Your task to perform on an android device: What's on my calendar today? Image 0: 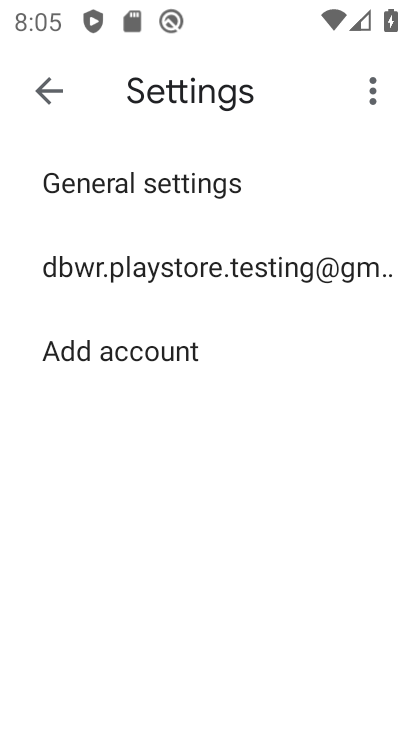
Step 0: press home button
Your task to perform on an android device: What's on my calendar today? Image 1: 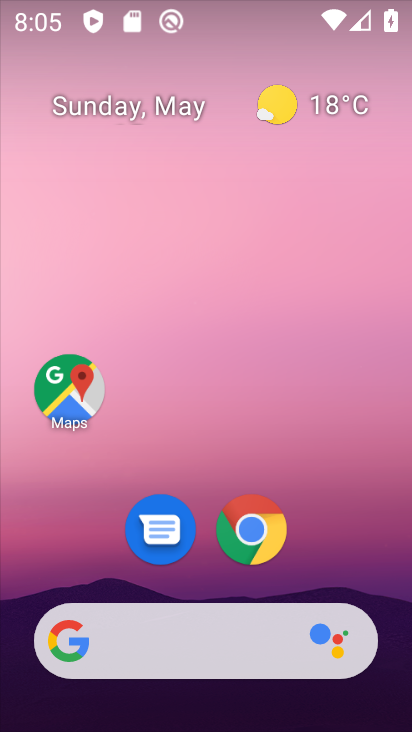
Step 1: drag from (372, 598) to (351, 18)
Your task to perform on an android device: What's on my calendar today? Image 2: 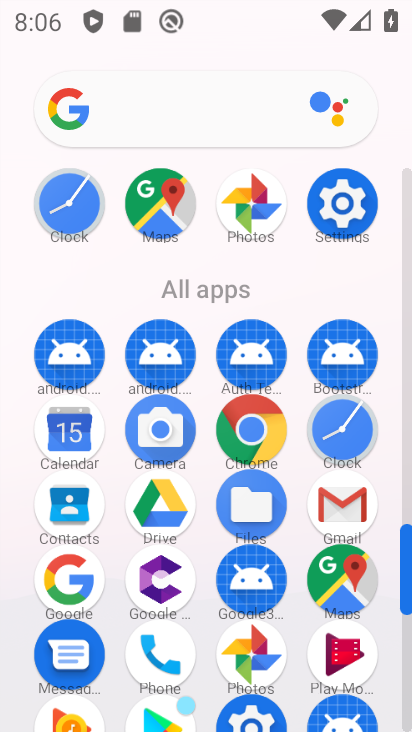
Step 2: click (59, 432)
Your task to perform on an android device: What's on my calendar today? Image 3: 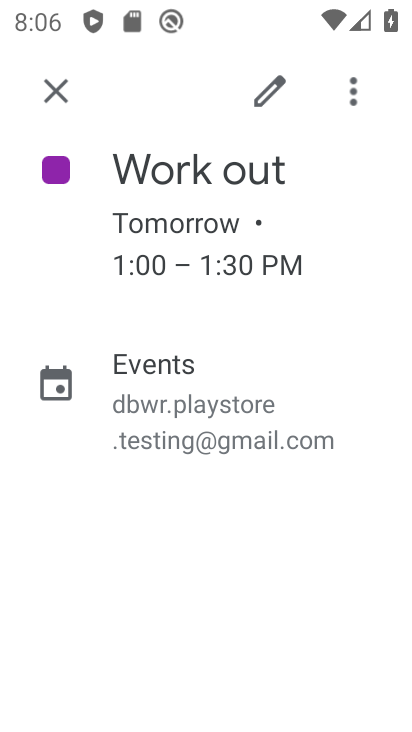
Step 3: click (53, 90)
Your task to perform on an android device: What's on my calendar today? Image 4: 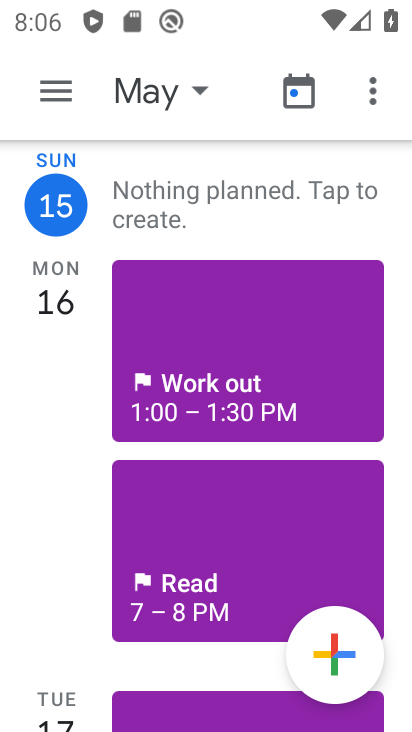
Step 4: drag from (218, 302) to (250, 490)
Your task to perform on an android device: What's on my calendar today? Image 5: 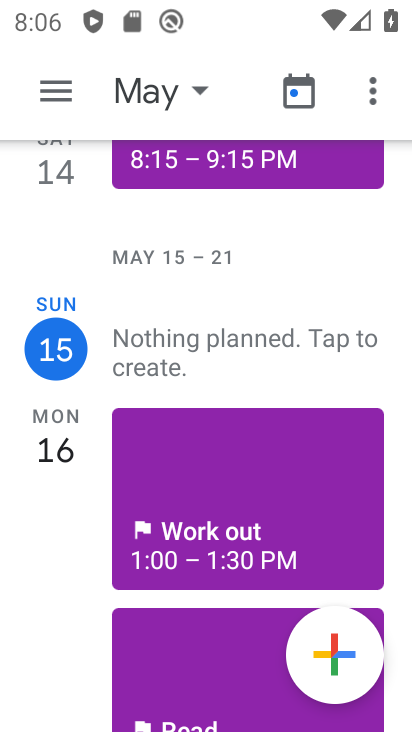
Step 5: click (169, 358)
Your task to perform on an android device: What's on my calendar today? Image 6: 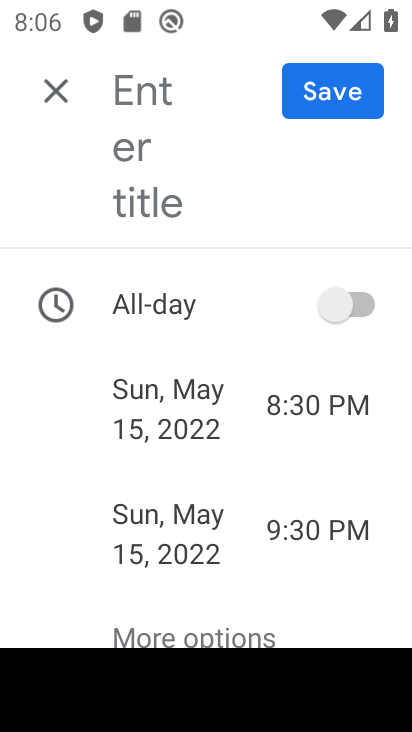
Step 6: task complete